Your task to perform on an android device: Go to Google maps Image 0: 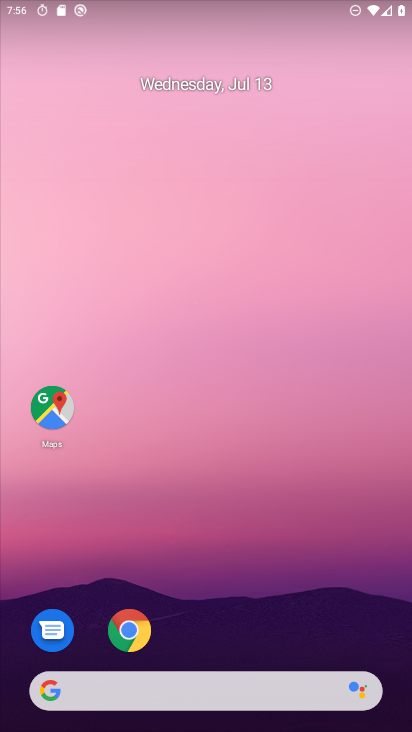
Step 0: drag from (379, 666) to (256, 4)
Your task to perform on an android device: Go to Google maps Image 1: 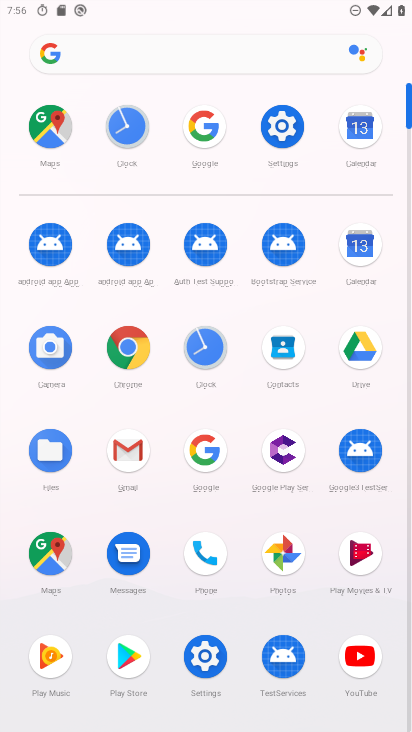
Step 1: click (47, 551)
Your task to perform on an android device: Go to Google maps Image 2: 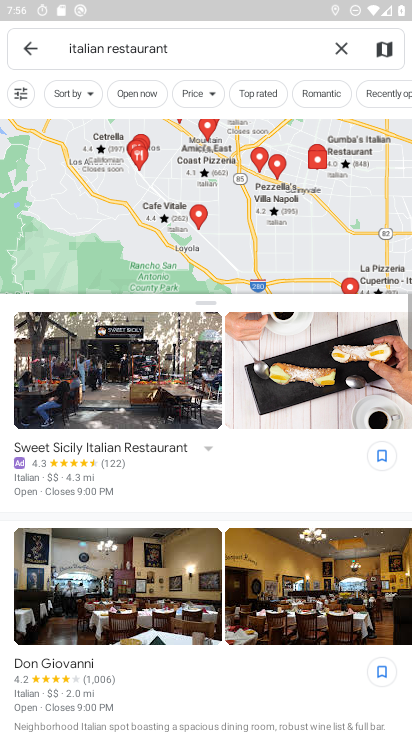
Step 2: click (336, 47)
Your task to perform on an android device: Go to Google maps Image 3: 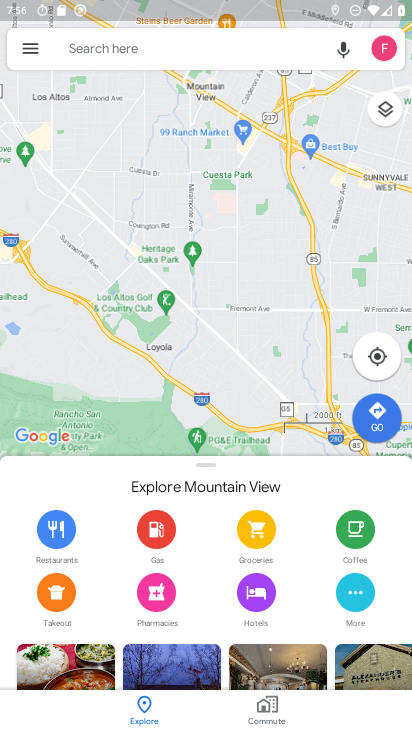
Step 3: task complete